Your task to perform on an android device: Open calendar and show me the fourth week of next month Image 0: 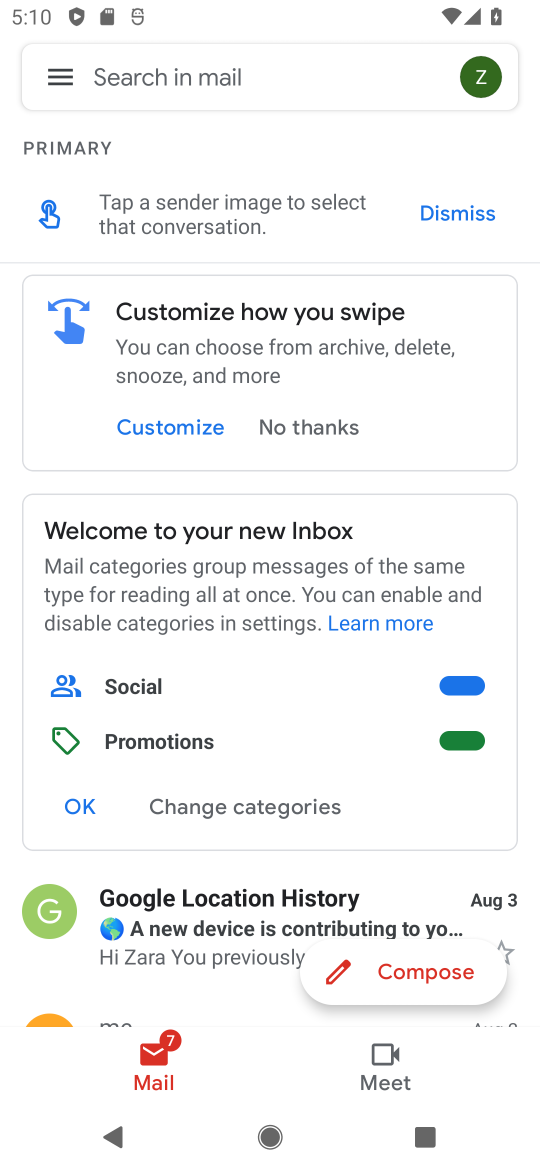
Step 0: press home button
Your task to perform on an android device: Open calendar and show me the fourth week of next month Image 1: 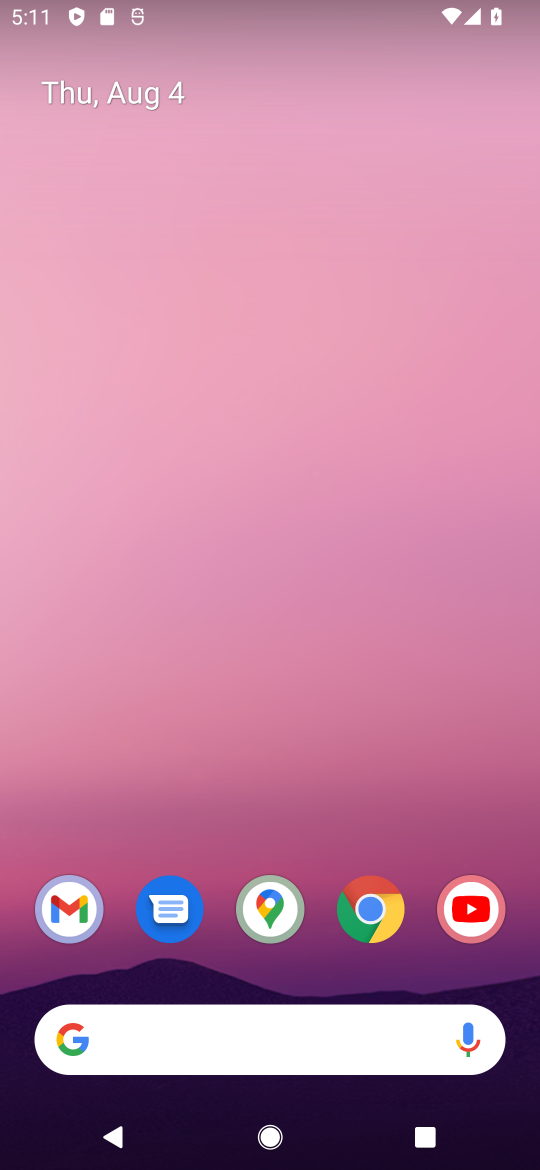
Step 1: drag from (226, 1050) to (314, 115)
Your task to perform on an android device: Open calendar and show me the fourth week of next month Image 2: 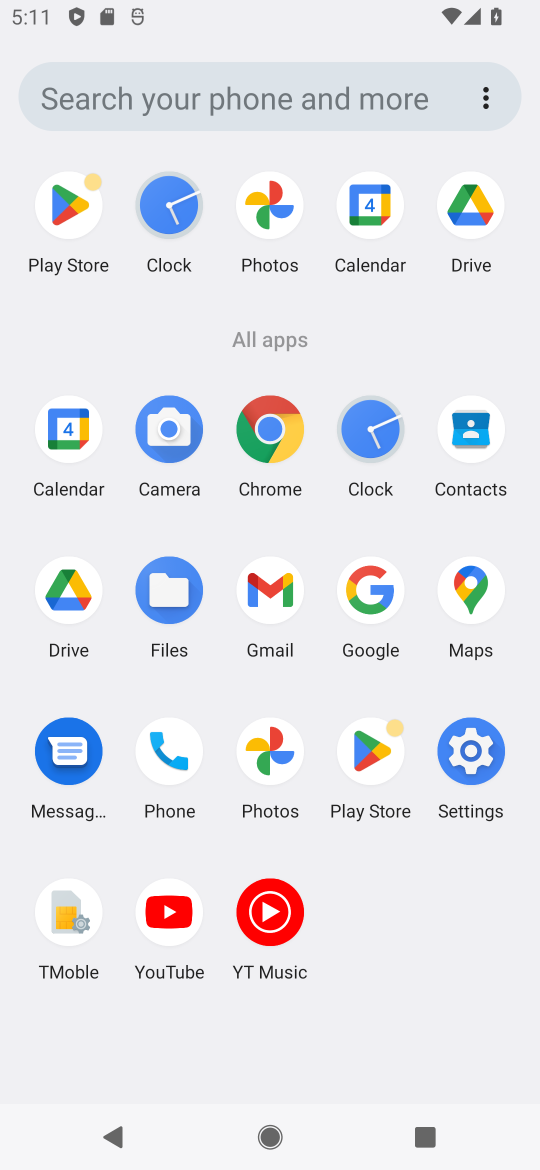
Step 2: click (72, 424)
Your task to perform on an android device: Open calendar and show me the fourth week of next month Image 3: 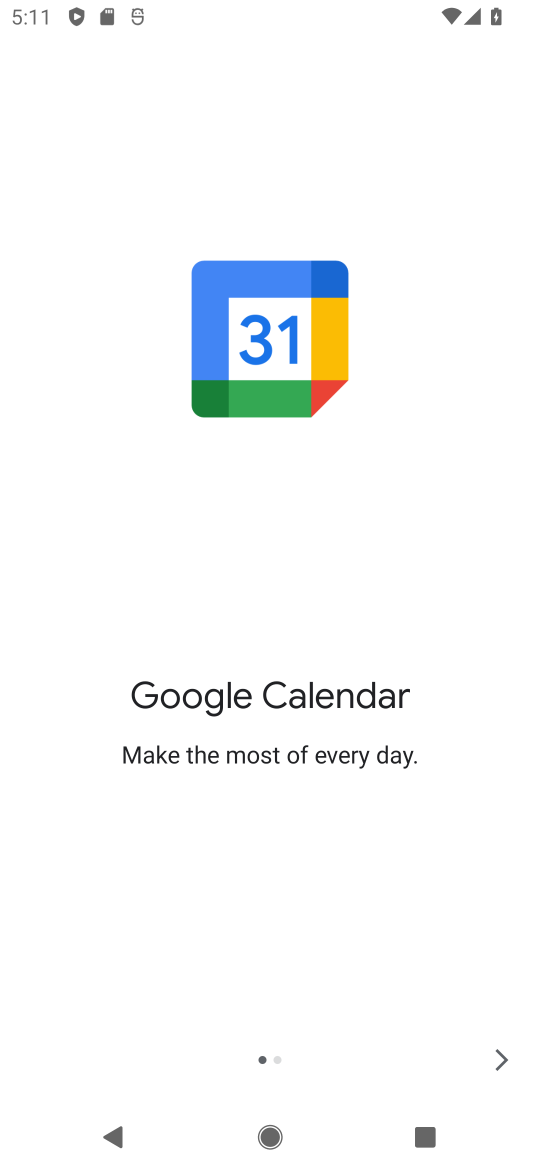
Step 3: click (503, 1057)
Your task to perform on an android device: Open calendar and show me the fourth week of next month Image 4: 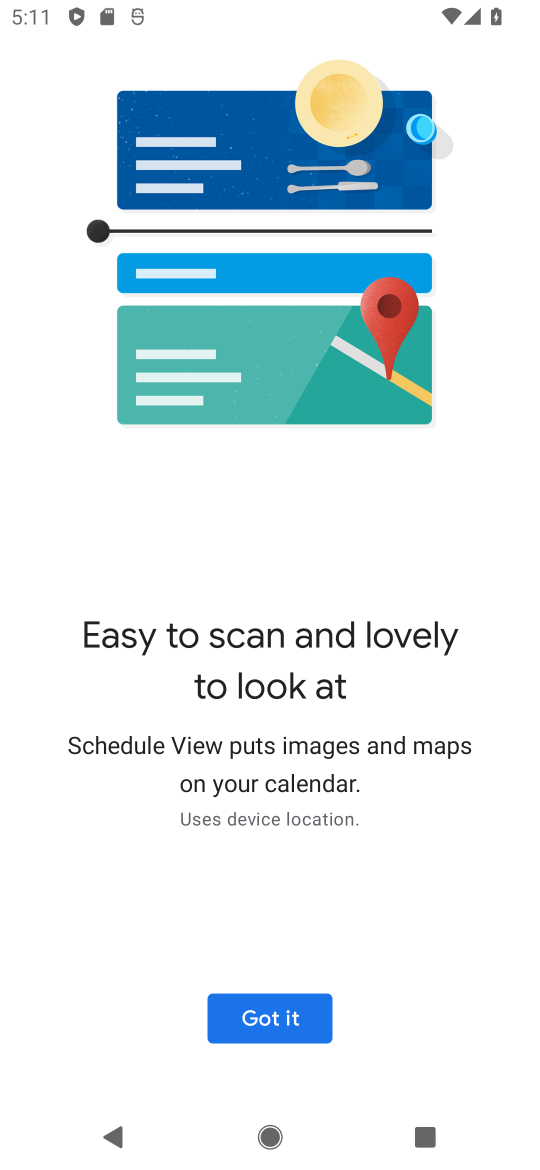
Step 4: click (288, 1019)
Your task to perform on an android device: Open calendar and show me the fourth week of next month Image 5: 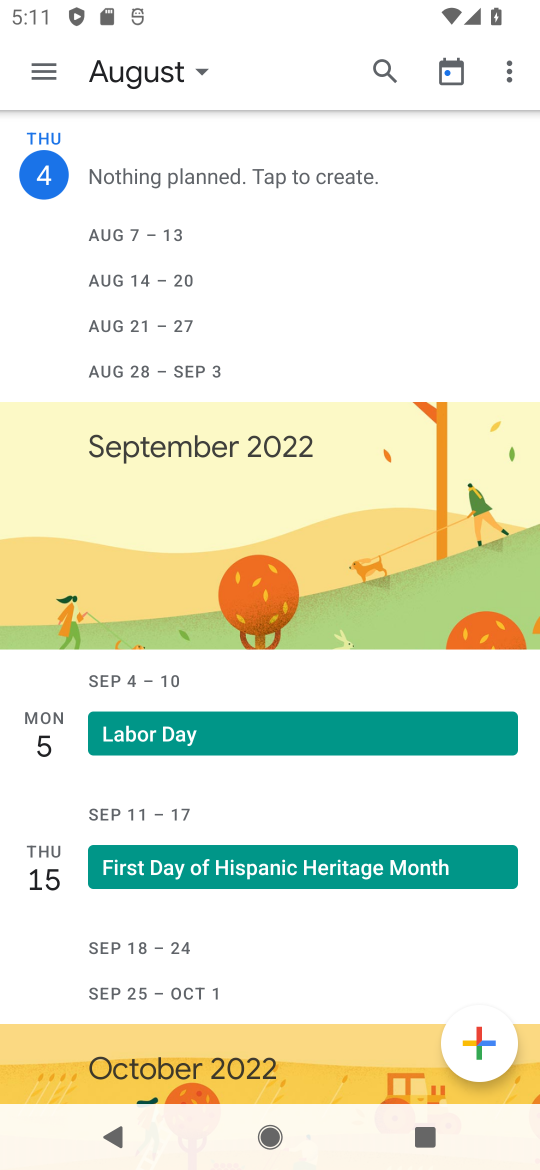
Step 5: click (202, 68)
Your task to perform on an android device: Open calendar and show me the fourth week of next month Image 6: 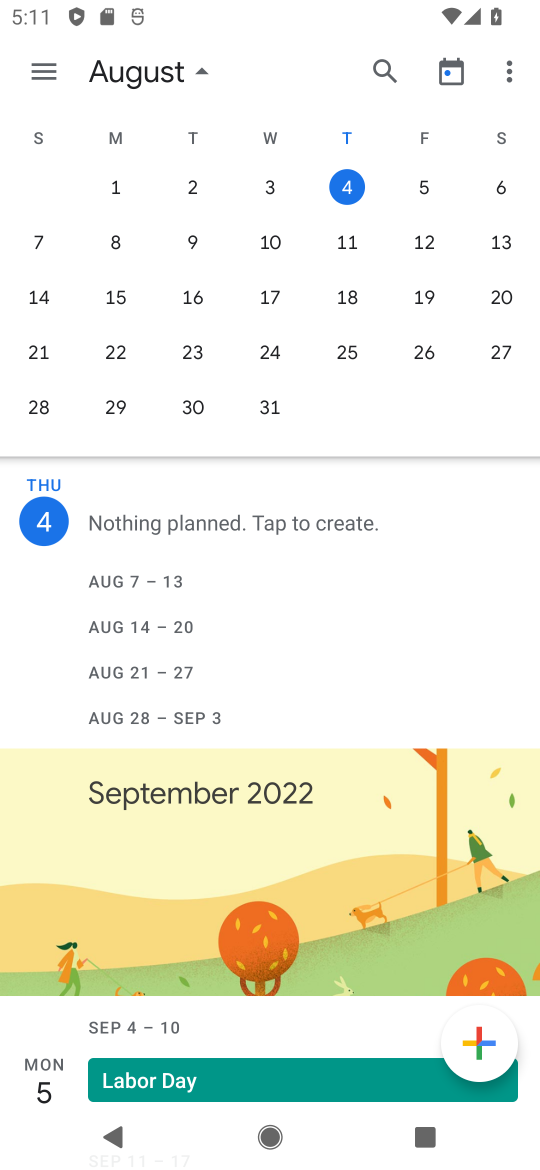
Step 6: drag from (492, 262) to (20, 351)
Your task to perform on an android device: Open calendar and show me the fourth week of next month Image 7: 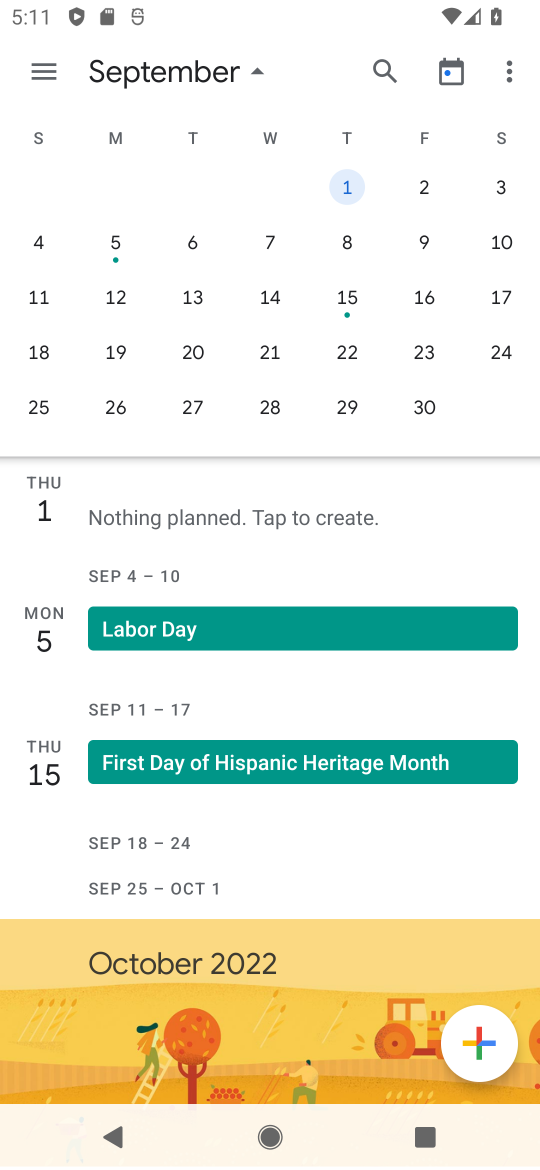
Step 7: click (119, 404)
Your task to perform on an android device: Open calendar and show me the fourth week of next month Image 8: 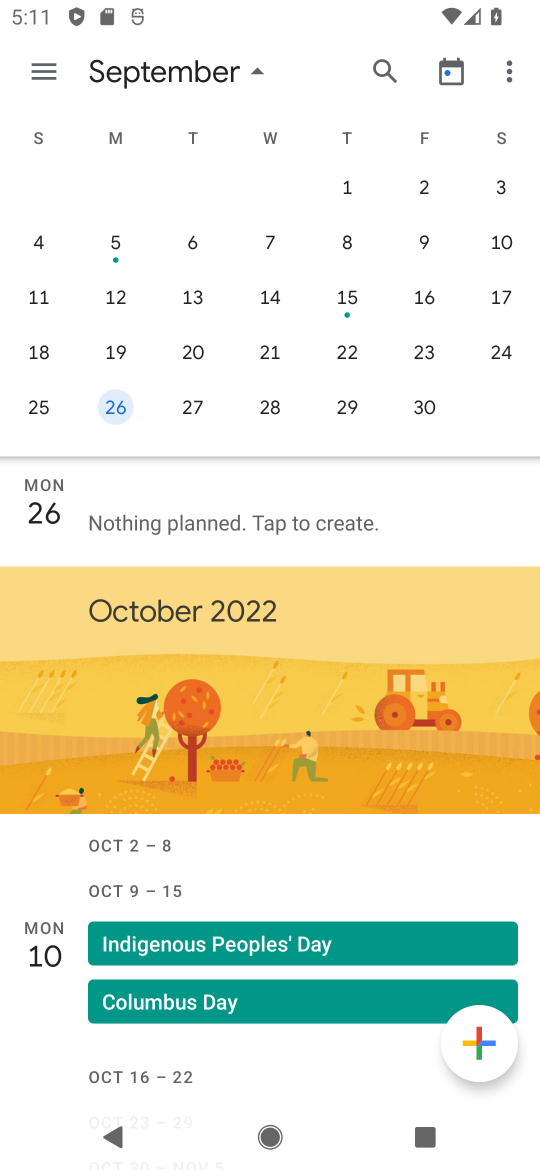
Step 8: click (48, 74)
Your task to perform on an android device: Open calendar and show me the fourth week of next month Image 9: 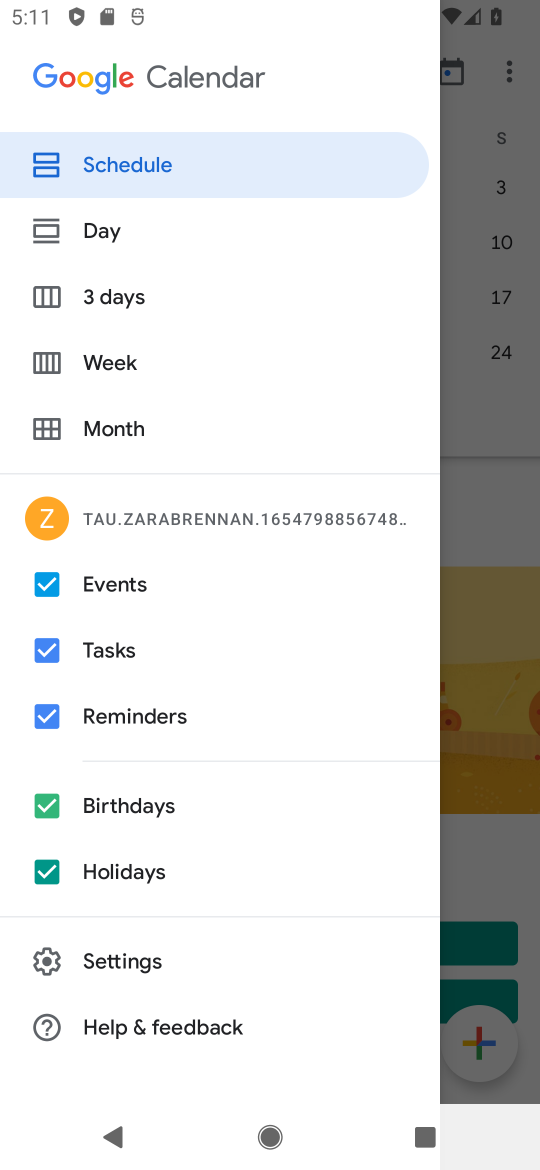
Step 9: click (153, 373)
Your task to perform on an android device: Open calendar and show me the fourth week of next month Image 10: 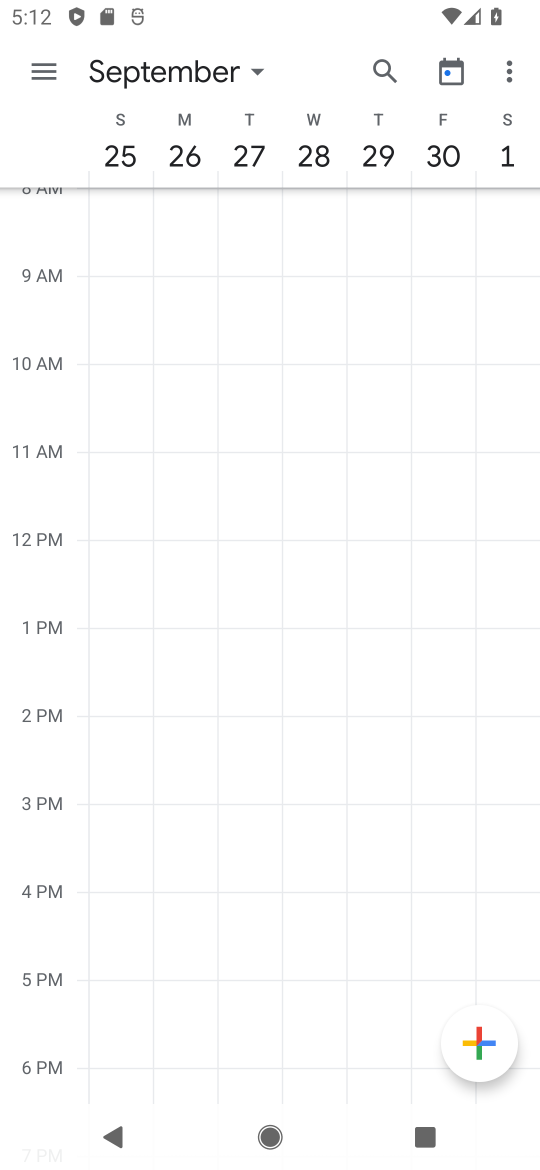
Step 10: task complete